Your task to perform on an android device: Show me recent news Image 0: 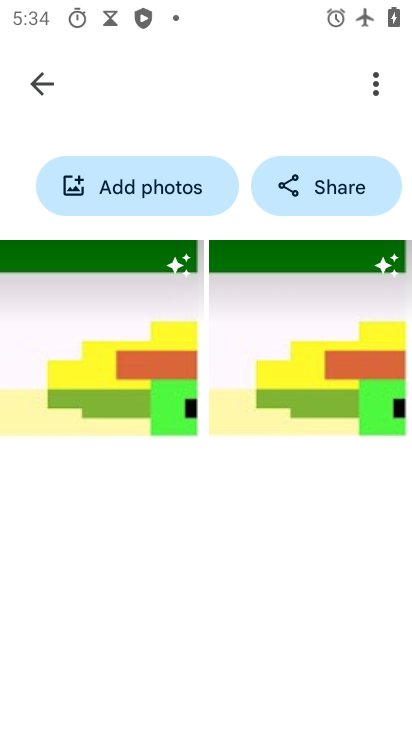
Step 0: click (33, 80)
Your task to perform on an android device: Show me recent news Image 1: 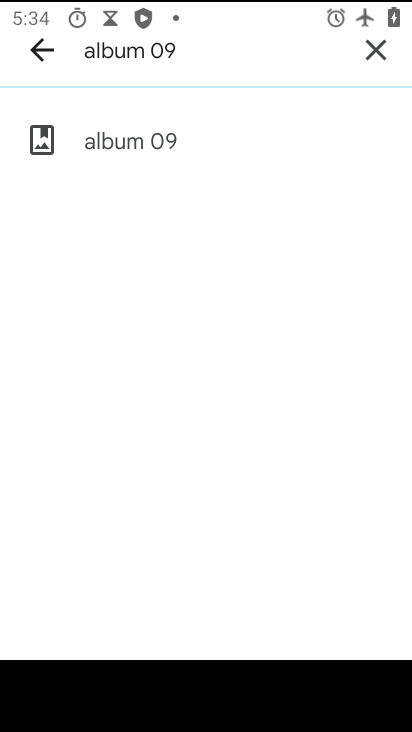
Step 1: click (42, 53)
Your task to perform on an android device: Show me recent news Image 2: 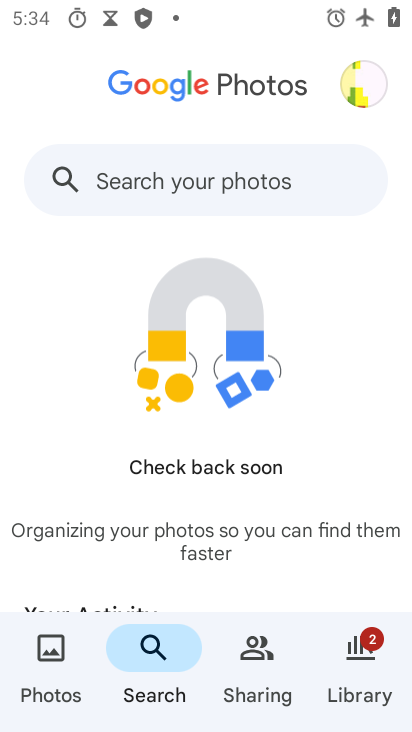
Step 2: click (54, 658)
Your task to perform on an android device: Show me recent news Image 3: 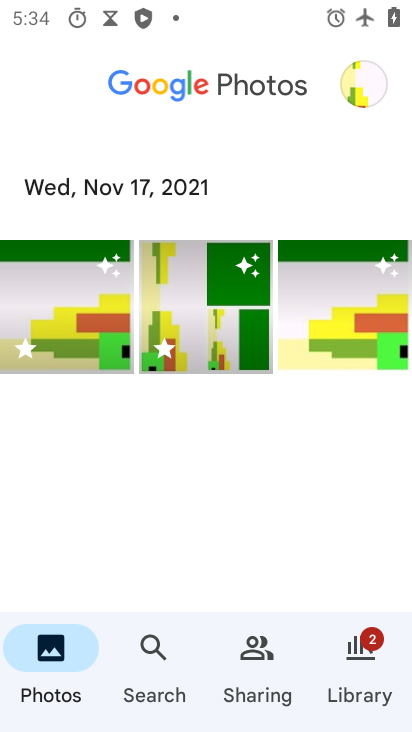
Step 3: click (71, 292)
Your task to perform on an android device: Show me recent news Image 4: 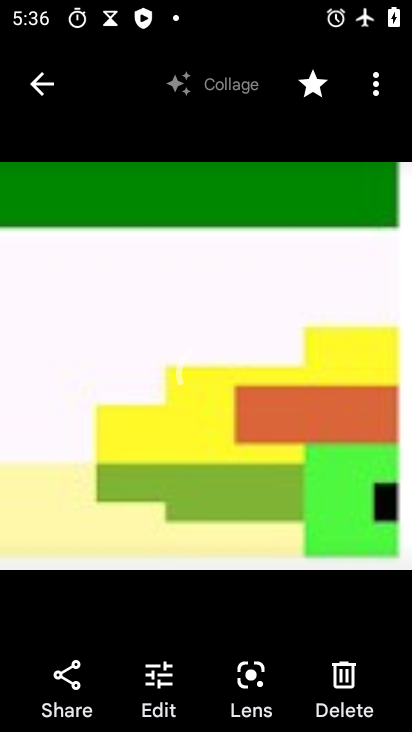
Step 4: task complete